Your task to perform on an android device: Open Chrome and go to settings Image 0: 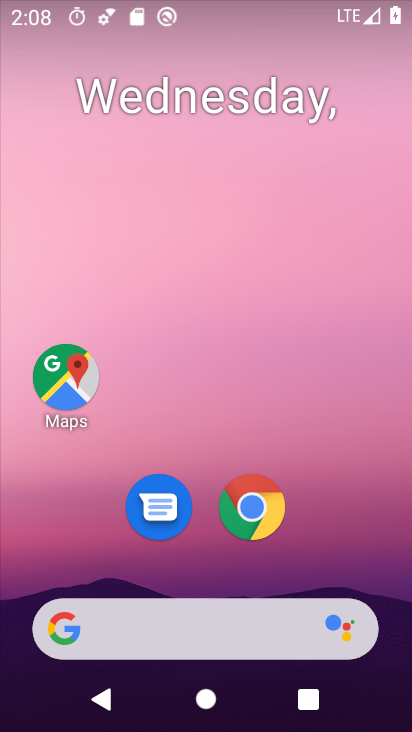
Step 0: click (257, 519)
Your task to perform on an android device: Open Chrome and go to settings Image 1: 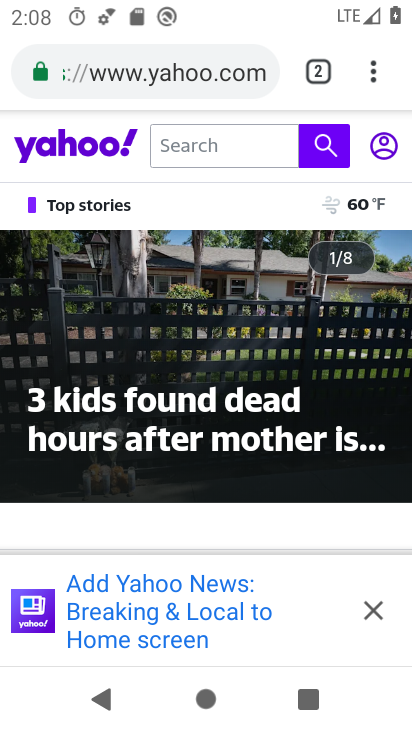
Step 1: click (371, 71)
Your task to perform on an android device: Open Chrome and go to settings Image 2: 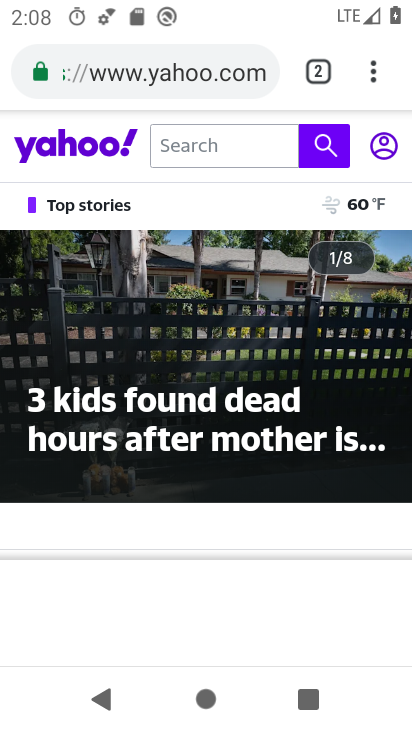
Step 2: click (380, 76)
Your task to perform on an android device: Open Chrome and go to settings Image 3: 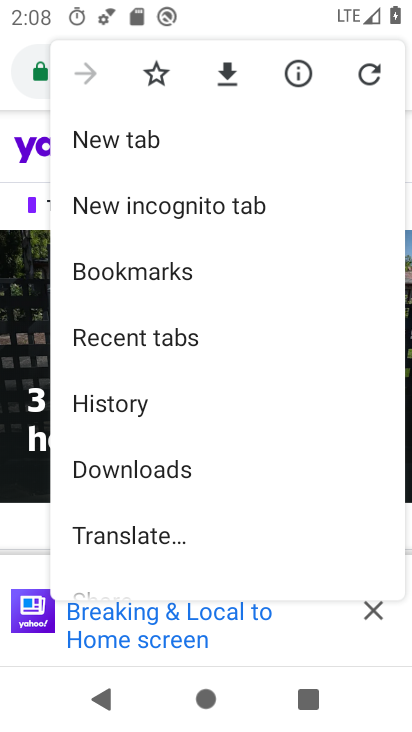
Step 3: drag from (188, 479) to (221, 142)
Your task to perform on an android device: Open Chrome and go to settings Image 4: 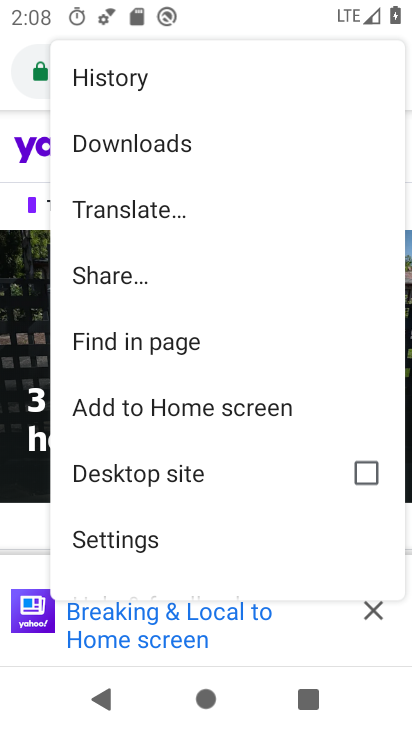
Step 4: click (219, 506)
Your task to perform on an android device: Open Chrome and go to settings Image 5: 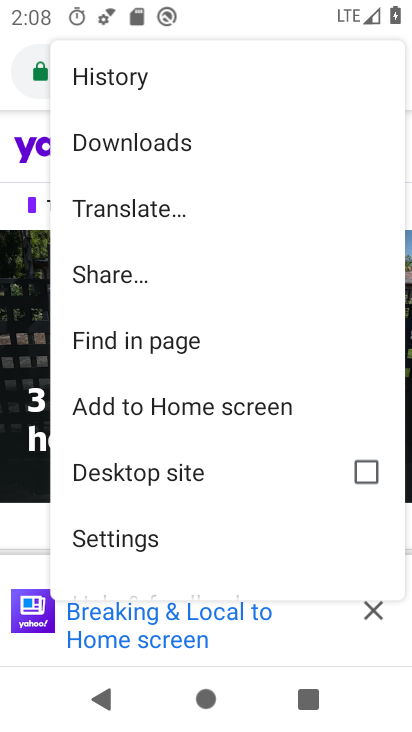
Step 5: click (160, 540)
Your task to perform on an android device: Open Chrome and go to settings Image 6: 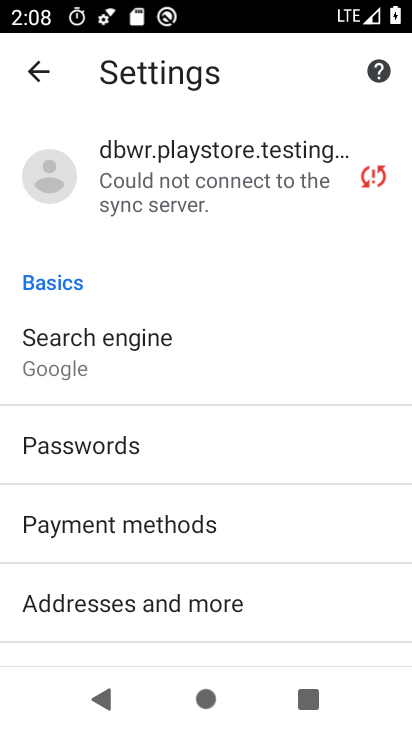
Step 6: task complete